Your task to perform on an android device: Go to Yahoo.com Image 0: 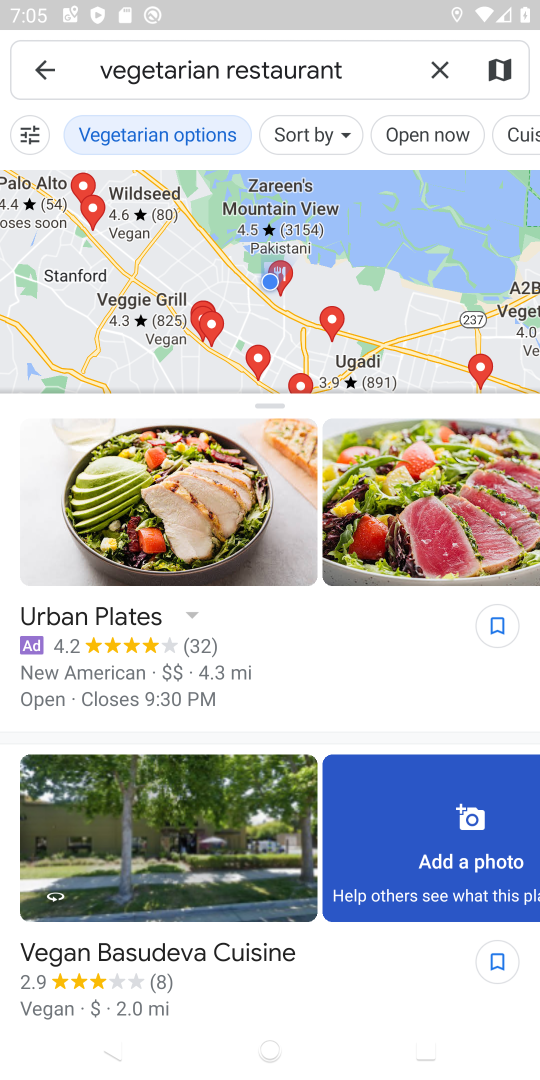
Step 0: press home button
Your task to perform on an android device: Go to Yahoo.com Image 1: 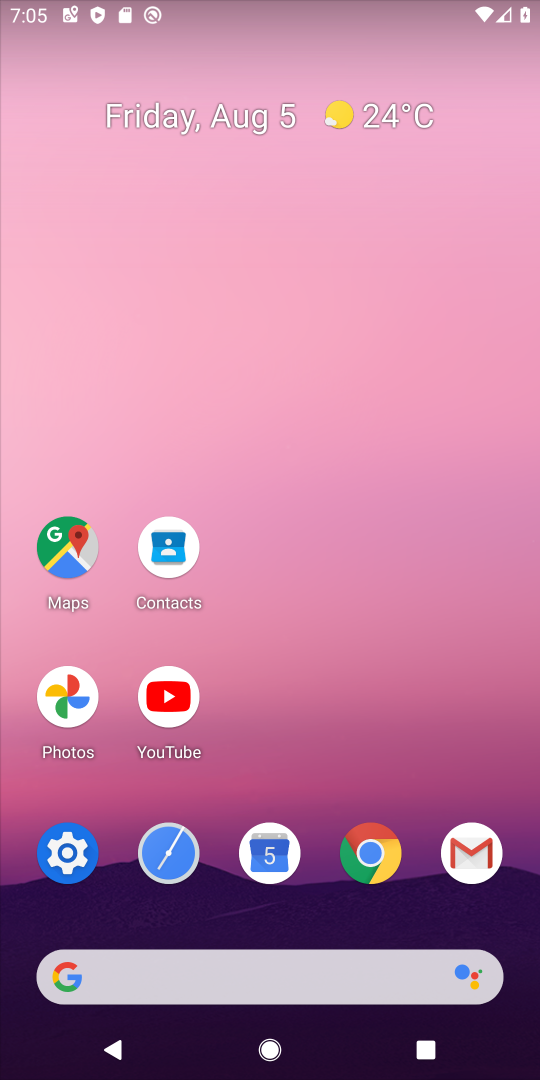
Step 1: click (371, 859)
Your task to perform on an android device: Go to Yahoo.com Image 2: 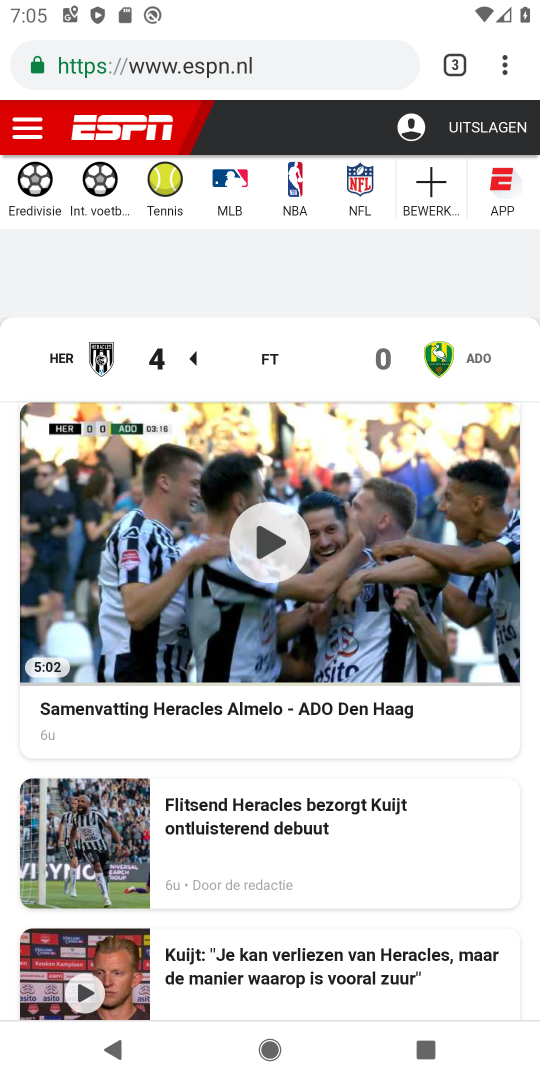
Step 2: click (509, 62)
Your task to perform on an android device: Go to Yahoo.com Image 3: 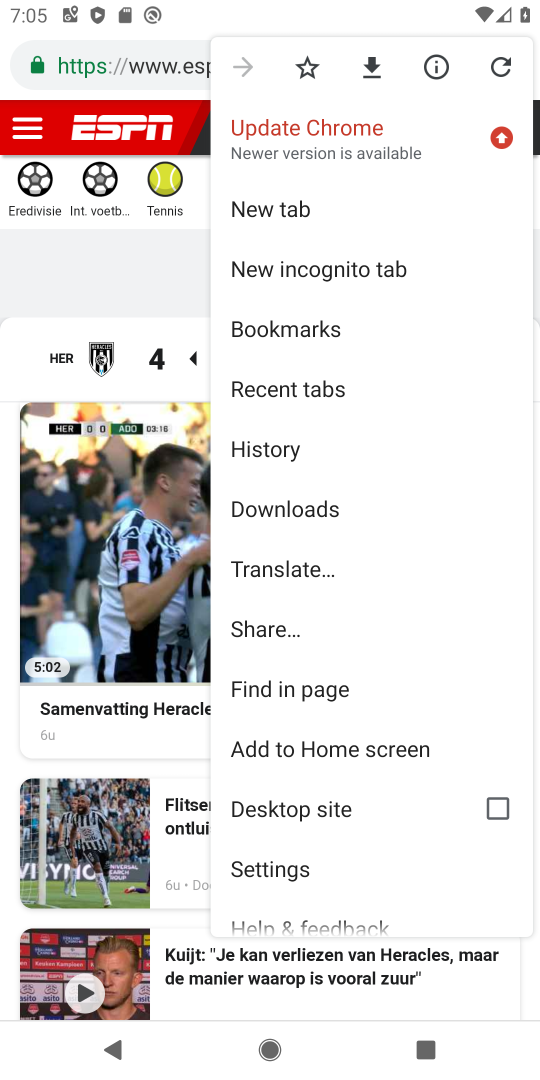
Step 3: click (287, 208)
Your task to perform on an android device: Go to Yahoo.com Image 4: 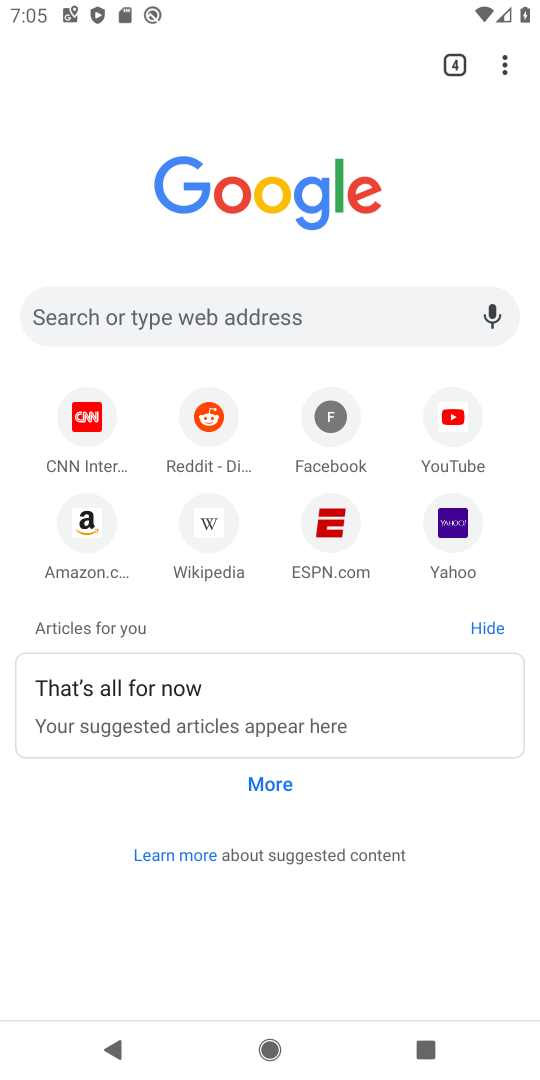
Step 4: click (462, 529)
Your task to perform on an android device: Go to Yahoo.com Image 5: 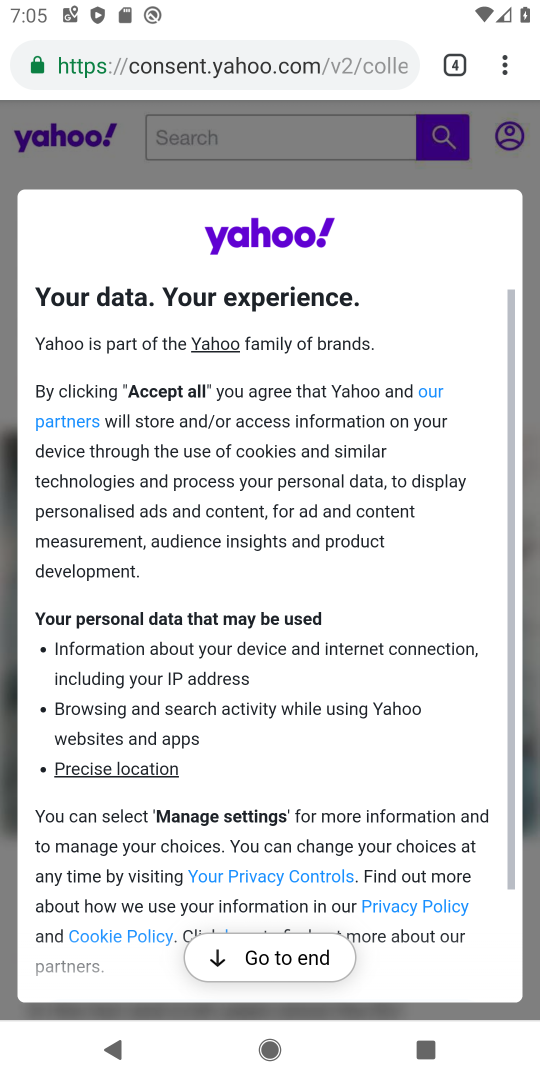
Step 5: click (296, 952)
Your task to perform on an android device: Go to Yahoo.com Image 6: 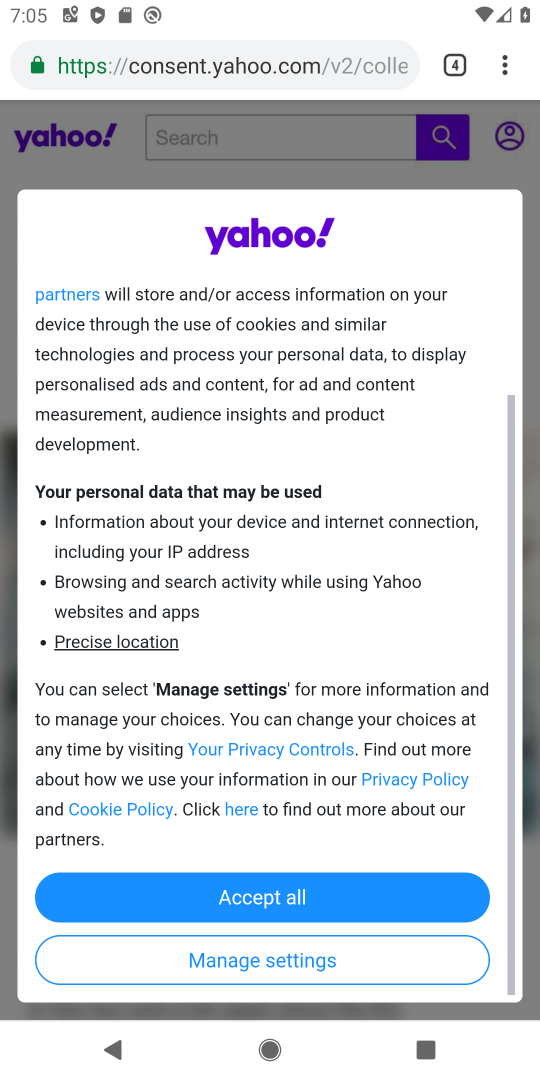
Step 6: click (275, 902)
Your task to perform on an android device: Go to Yahoo.com Image 7: 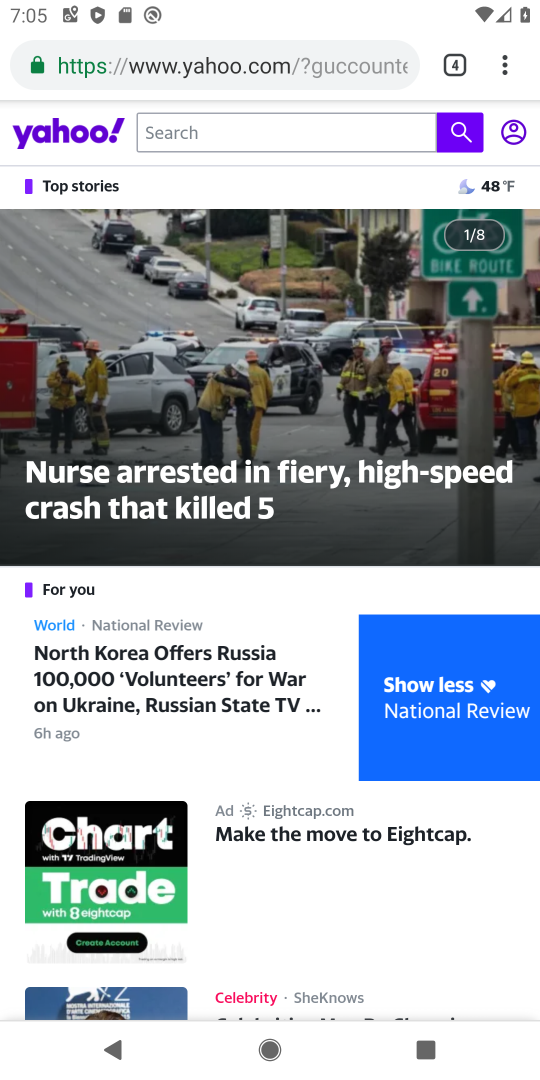
Step 7: task complete